Your task to perform on an android device: change the clock display to show seconds Image 0: 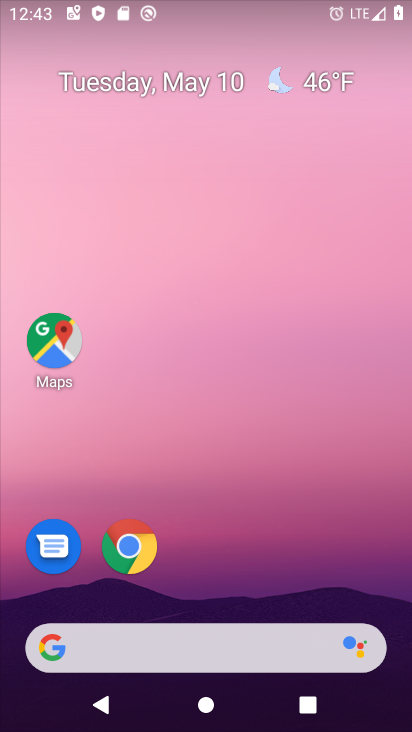
Step 0: drag from (395, 582) to (408, 153)
Your task to perform on an android device: change the clock display to show seconds Image 1: 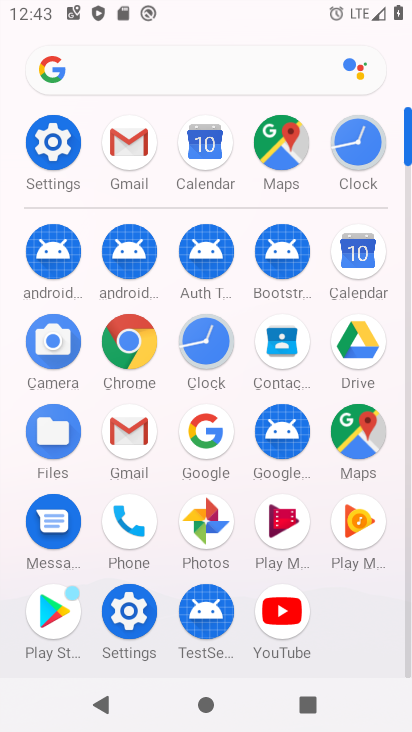
Step 1: click (360, 148)
Your task to perform on an android device: change the clock display to show seconds Image 2: 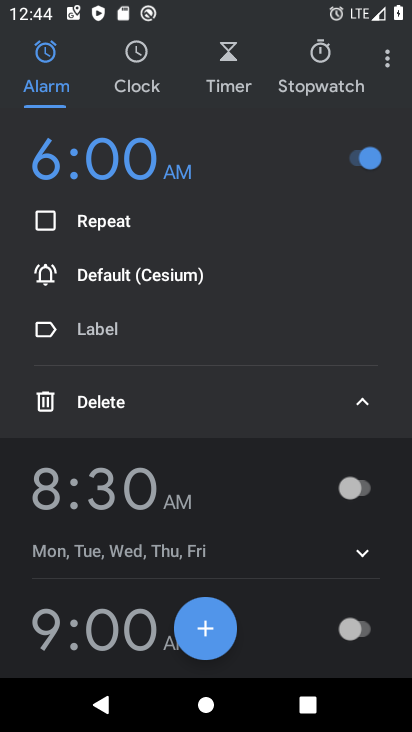
Step 2: click (386, 66)
Your task to perform on an android device: change the clock display to show seconds Image 3: 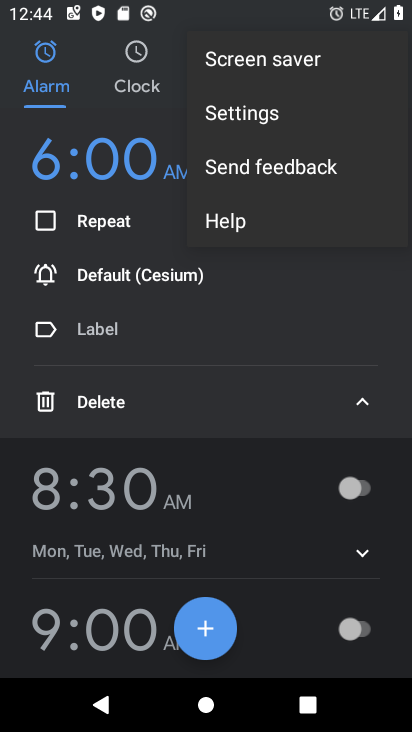
Step 3: click (270, 123)
Your task to perform on an android device: change the clock display to show seconds Image 4: 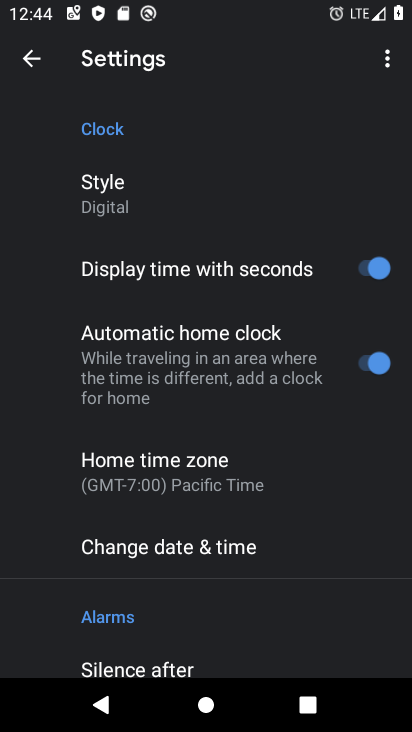
Step 4: task complete